Your task to perform on an android device: Go to wifi settings Image 0: 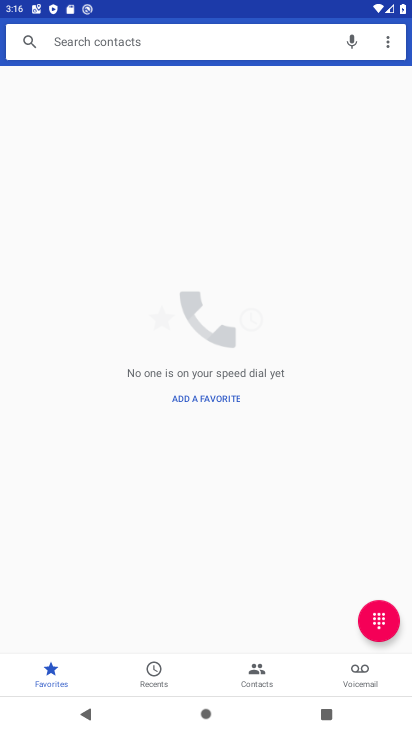
Step 0: press home button
Your task to perform on an android device: Go to wifi settings Image 1: 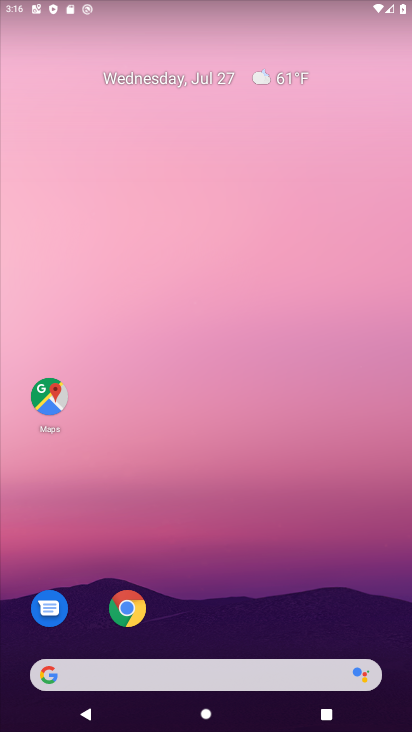
Step 1: drag from (254, 633) to (225, 266)
Your task to perform on an android device: Go to wifi settings Image 2: 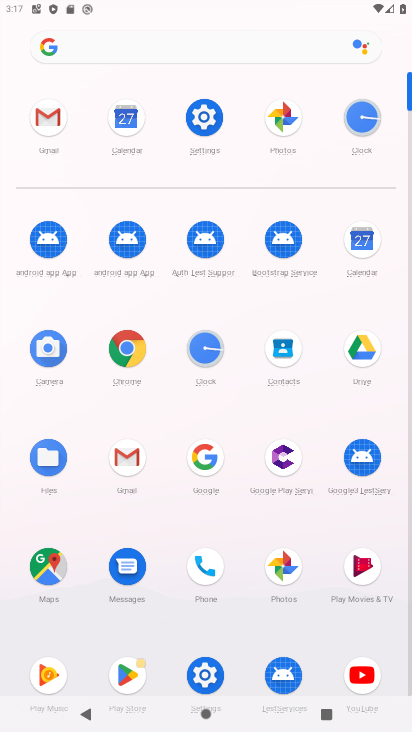
Step 2: click (204, 115)
Your task to perform on an android device: Go to wifi settings Image 3: 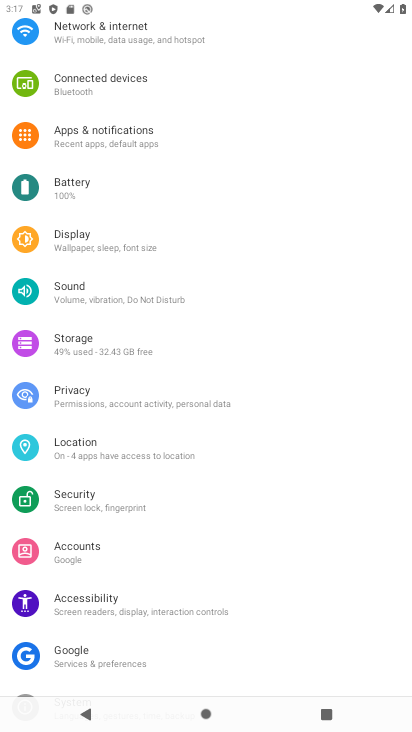
Step 3: click (123, 38)
Your task to perform on an android device: Go to wifi settings Image 4: 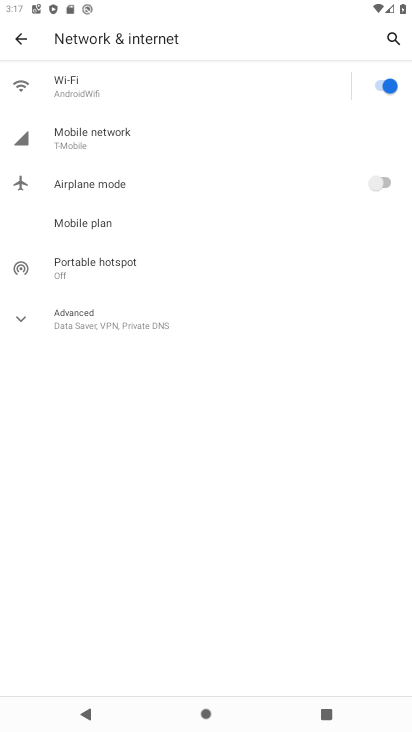
Step 4: click (90, 92)
Your task to perform on an android device: Go to wifi settings Image 5: 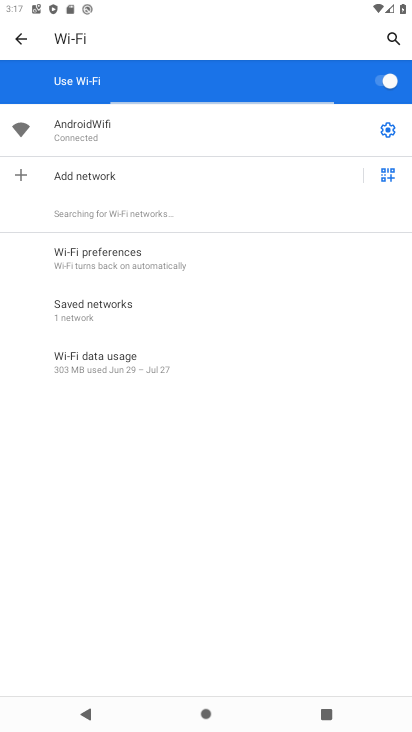
Step 5: task complete